Your task to perform on an android device: Turn off the flashlight Image 0: 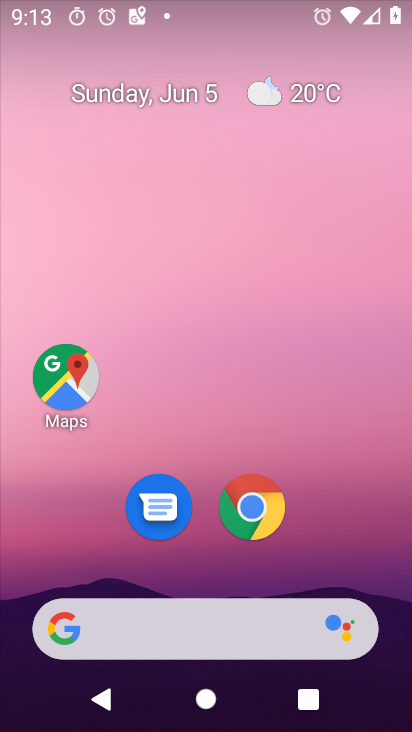
Step 0: drag from (317, 537) to (216, 0)
Your task to perform on an android device: Turn off the flashlight Image 1: 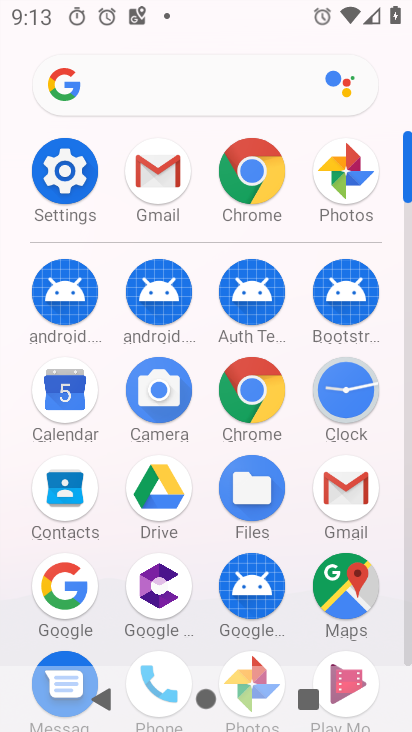
Step 1: drag from (0, 532) to (0, 274)
Your task to perform on an android device: Turn off the flashlight Image 2: 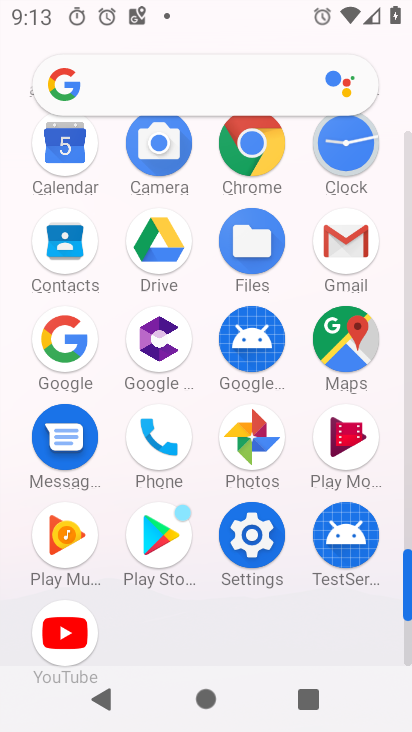
Step 2: click (254, 531)
Your task to perform on an android device: Turn off the flashlight Image 3: 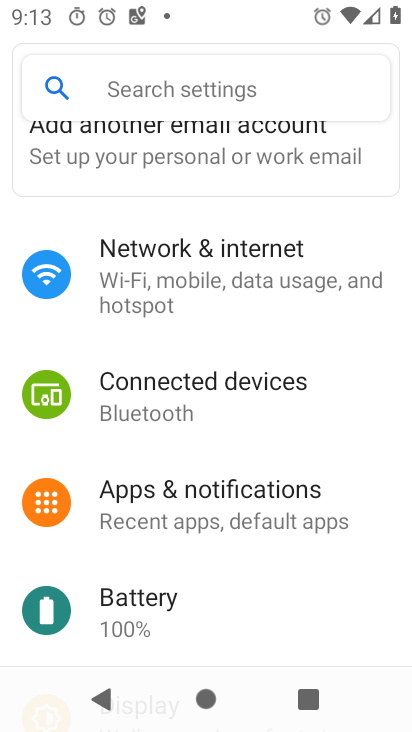
Step 3: click (273, 260)
Your task to perform on an android device: Turn off the flashlight Image 4: 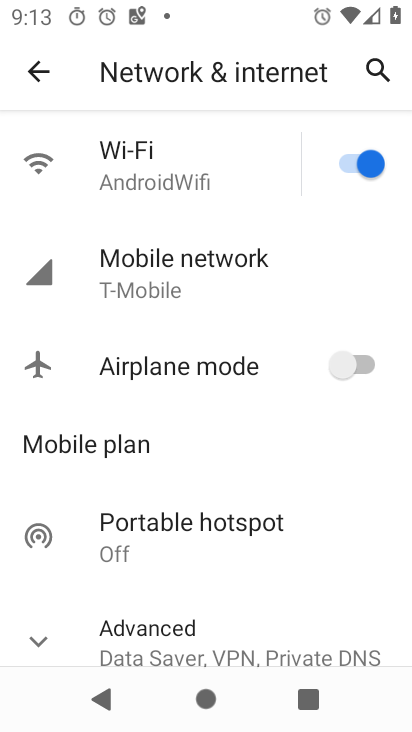
Step 4: click (37, 643)
Your task to perform on an android device: Turn off the flashlight Image 5: 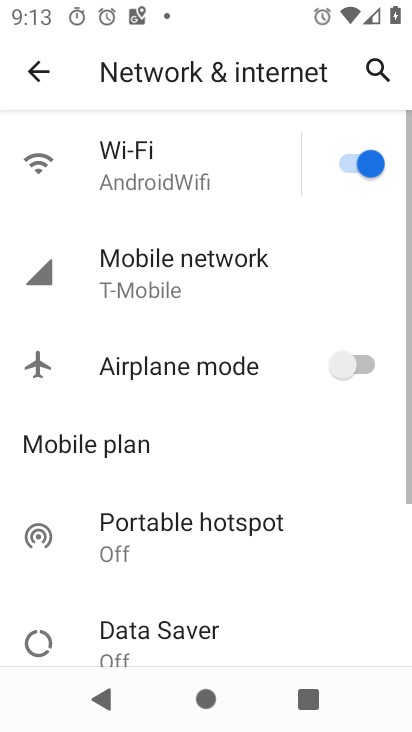
Step 5: task complete